Your task to perform on an android device: turn off picture-in-picture Image 0: 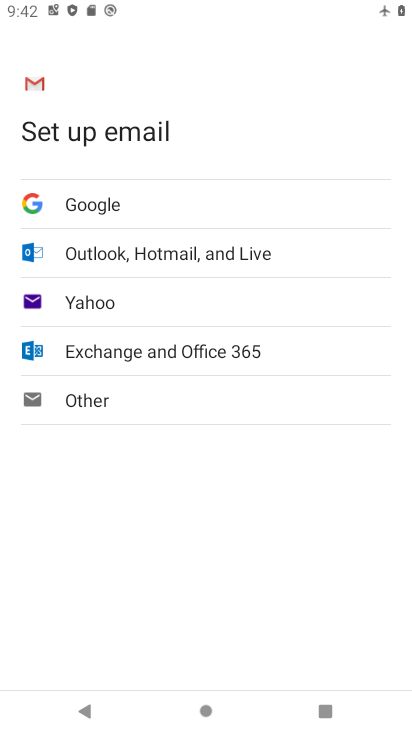
Step 0: press home button
Your task to perform on an android device: turn off picture-in-picture Image 1: 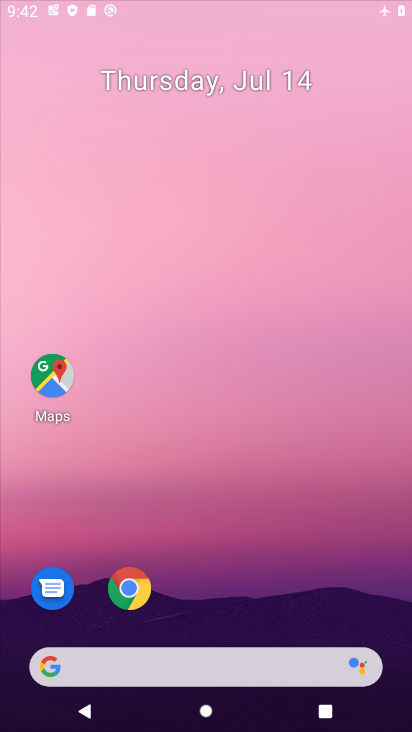
Step 1: drag from (391, 666) to (216, 14)
Your task to perform on an android device: turn off picture-in-picture Image 2: 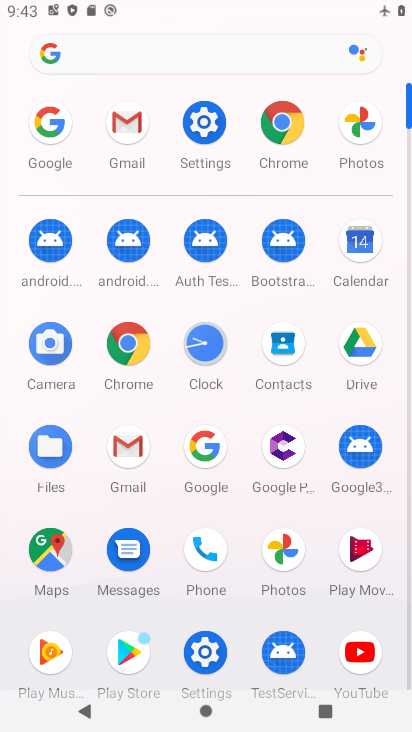
Step 2: click (133, 346)
Your task to perform on an android device: turn off picture-in-picture Image 3: 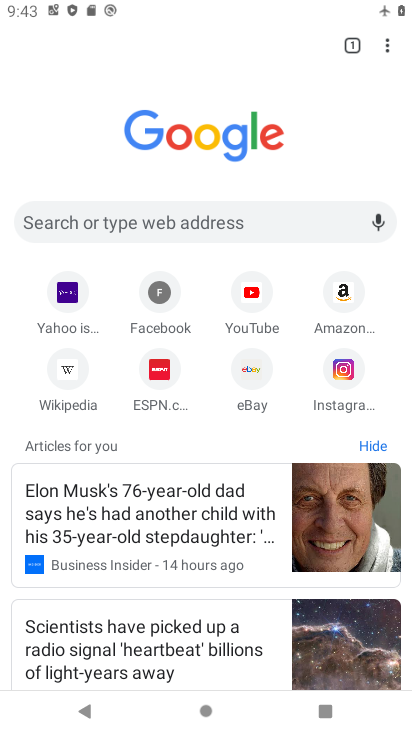
Step 3: task complete